Your task to perform on an android device: Open the stopwatch Image 0: 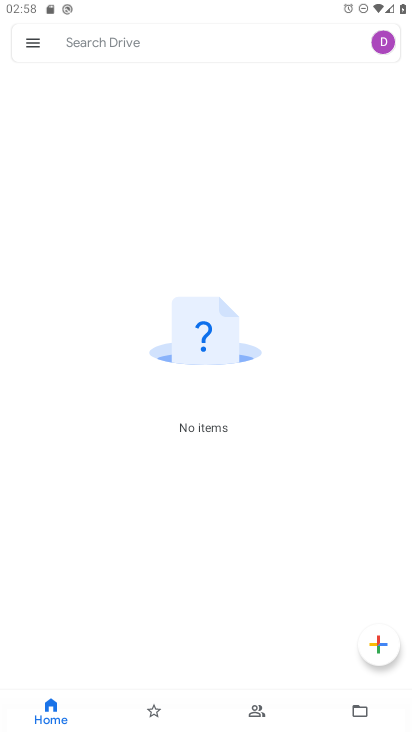
Step 0: press home button
Your task to perform on an android device: Open the stopwatch Image 1: 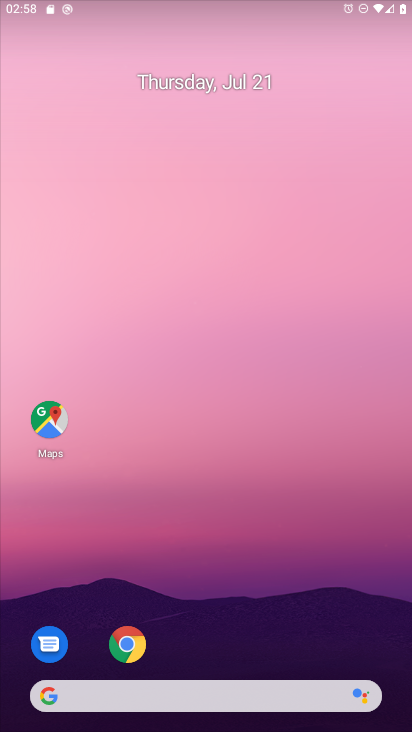
Step 1: drag from (180, 659) to (245, 203)
Your task to perform on an android device: Open the stopwatch Image 2: 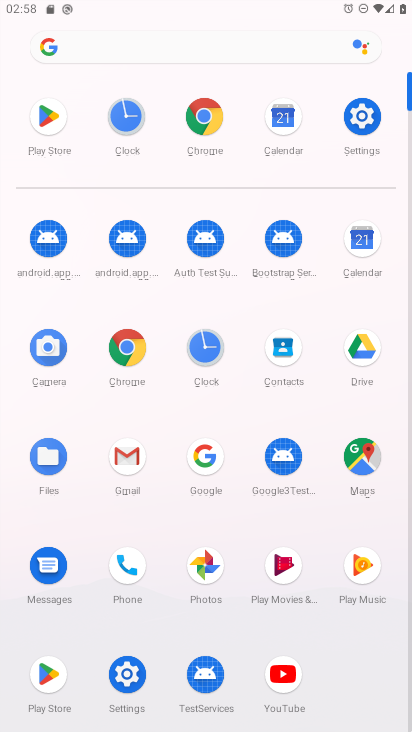
Step 2: click (205, 347)
Your task to perform on an android device: Open the stopwatch Image 3: 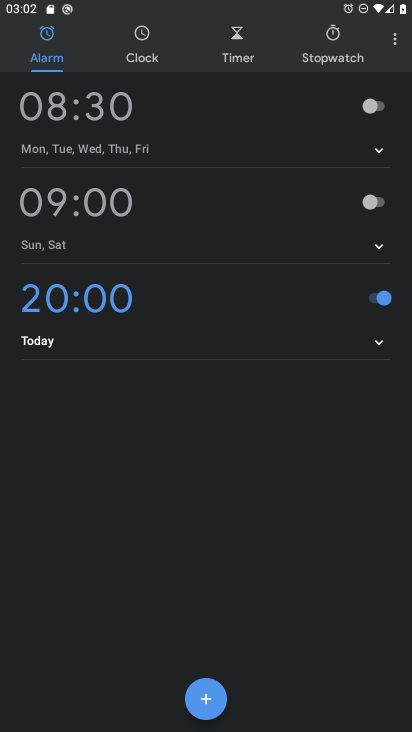
Step 3: click (315, 44)
Your task to perform on an android device: Open the stopwatch Image 4: 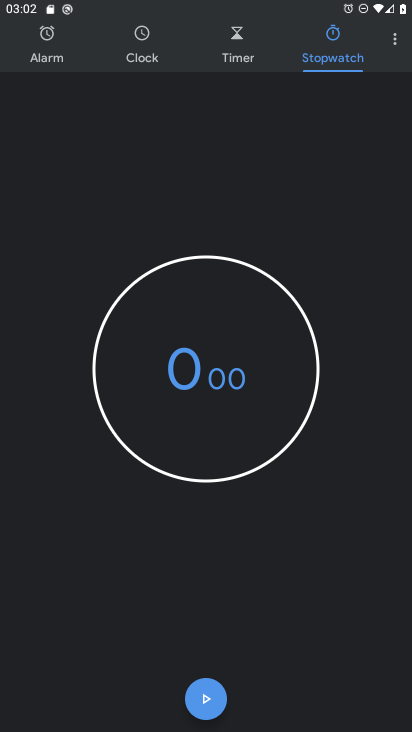
Step 4: task complete